Your task to perform on an android device: uninstall "Google News" Image 0: 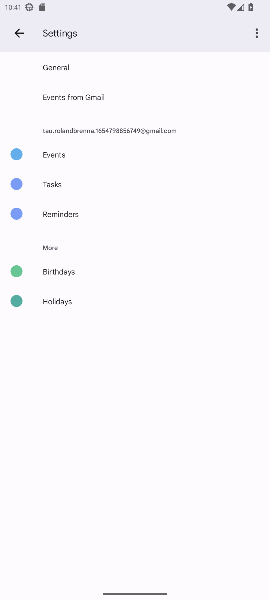
Step 0: press home button
Your task to perform on an android device: uninstall "Google News" Image 1: 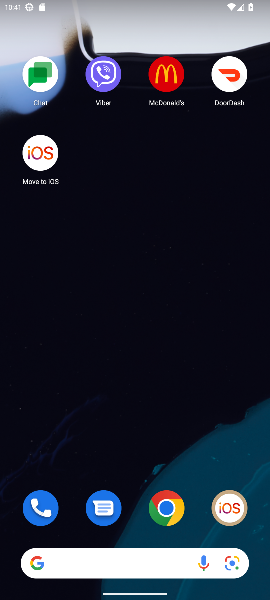
Step 1: drag from (75, 575) to (90, 75)
Your task to perform on an android device: uninstall "Google News" Image 2: 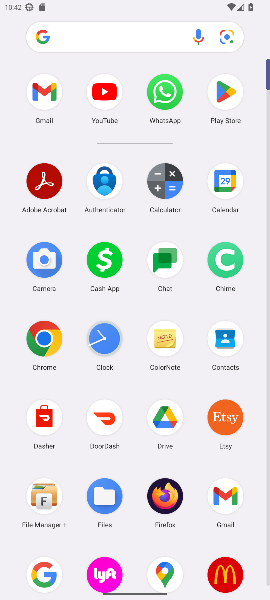
Step 2: click (228, 92)
Your task to perform on an android device: uninstall "Google News" Image 3: 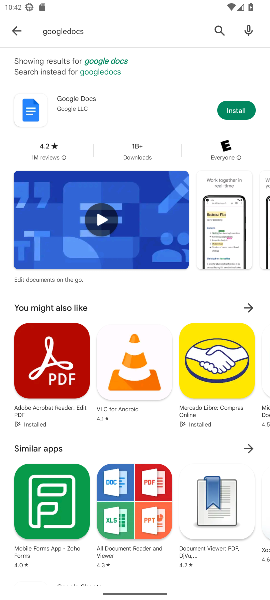
Step 3: click (212, 28)
Your task to perform on an android device: uninstall "Google News" Image 4: 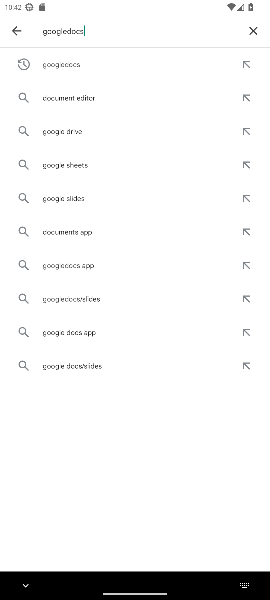
Step 4: click (255, 32)
Your task to perform on an android device: uninstall "Google News" Image 5: 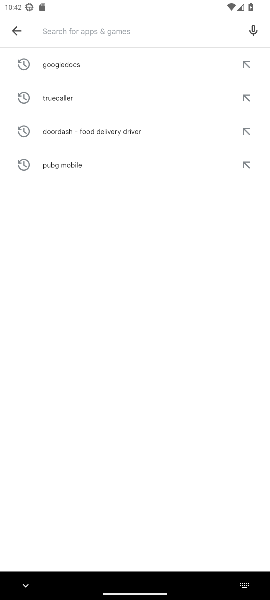
Step 5: type "Google news"
Your task to perform on an android device: uninstall "Google News" Image 6: 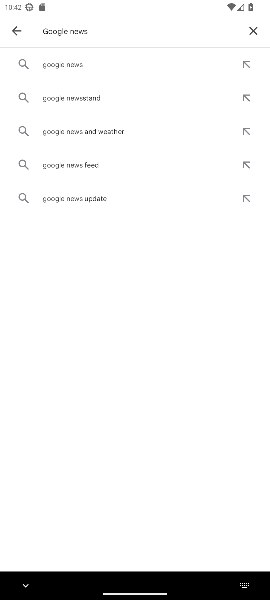
Step 6: click (58, 63)
Your task to perform on an android device: uninstall "Google News" Image 7: 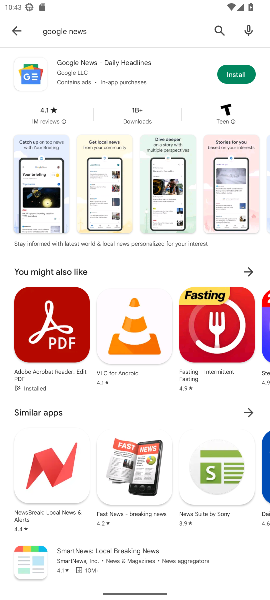
Step 7: task complete